Your task to perform on an android device: change the clock display to analog Image 0: 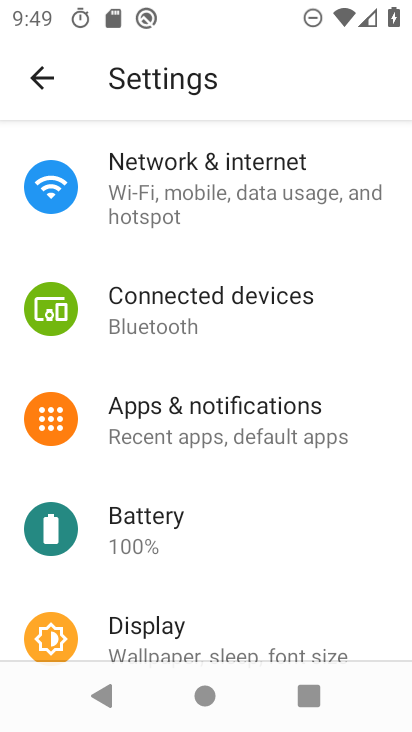
Step 0: press home button
Your task to perform on an android device: change the clock display to analog Image 1: 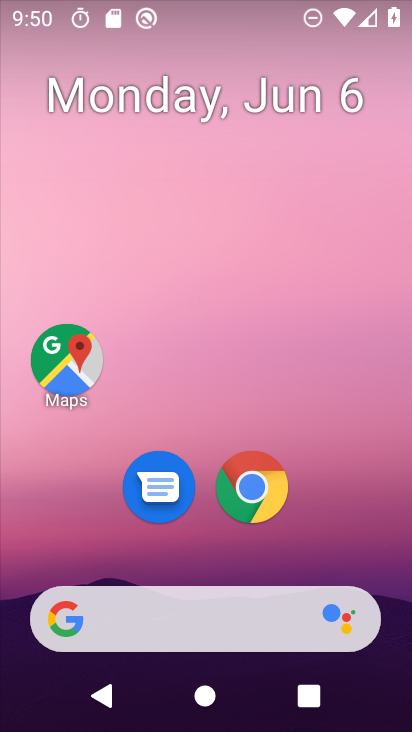
Step 1: drag from (372, 596) to (290, 53)
Your task to perform on an android device: change the clock display to analog Image 2: 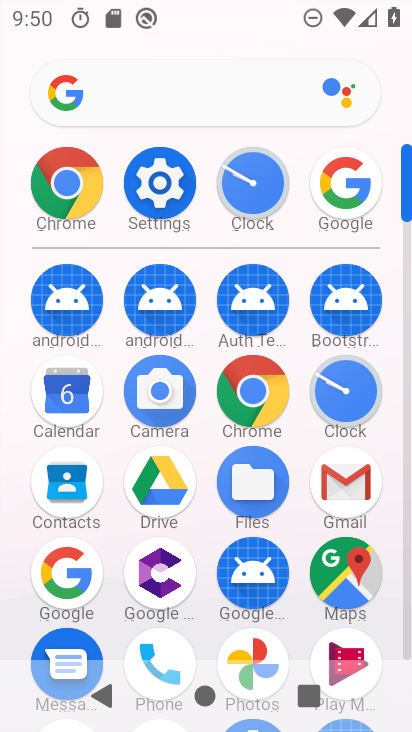
Step 2: click (332, 389)
Your task to perform on an android device: change the clock display to analog Image 3: 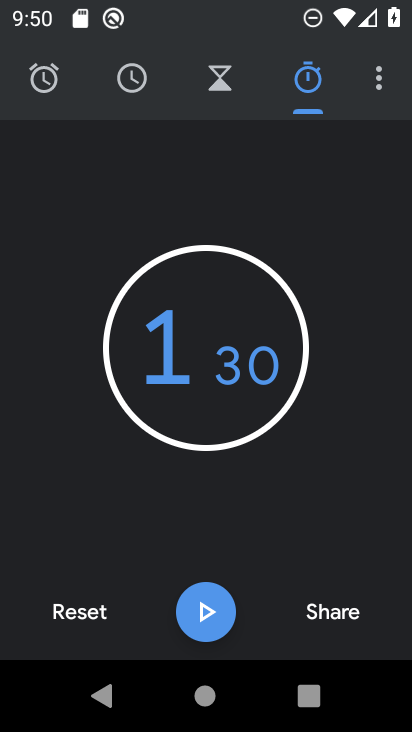
Step 3: click (369, 80)
Your task to perform on an android device: change the clock display to analog Image 4: 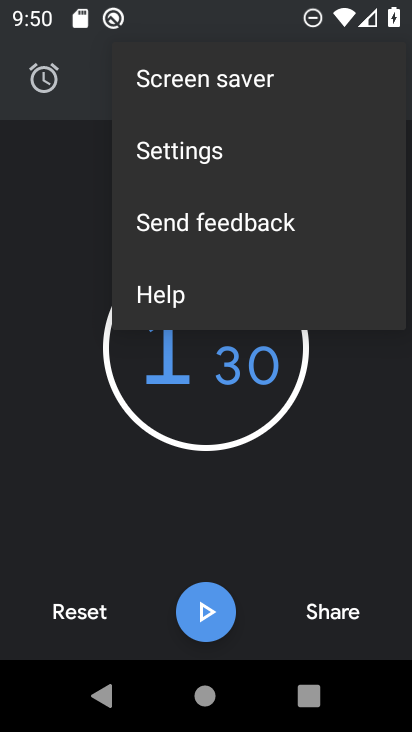
Step 4: click (220, 149)
Your task to perform on an android device: change the clock display to analog Image 5: 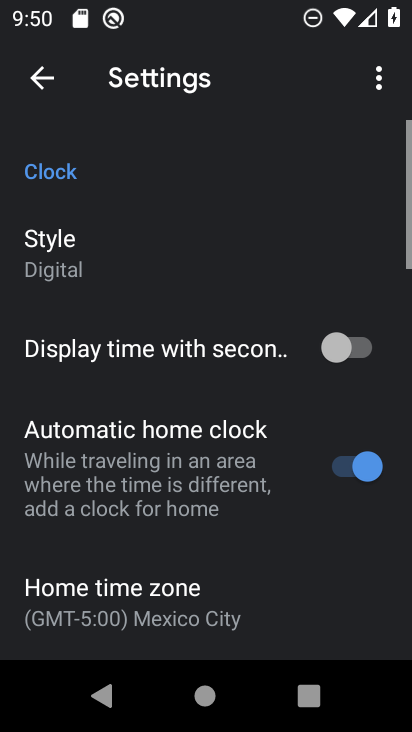
Step 5: click (219, 150)
Your task to perform on an android device: change the clock display to analog Image 6: 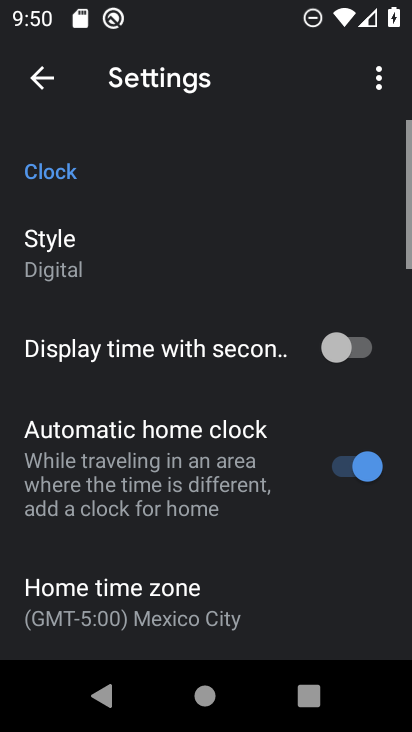
Step 6: click (150, 244)
Your task to perform on an android device: change the clock display to analog Image 7: 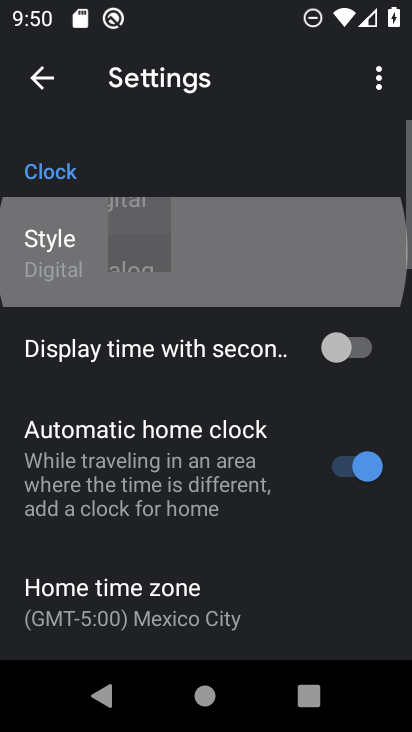
Step 7: click (149, 247)
Your task to perform on an android device: change the clock display to analog Image 8: 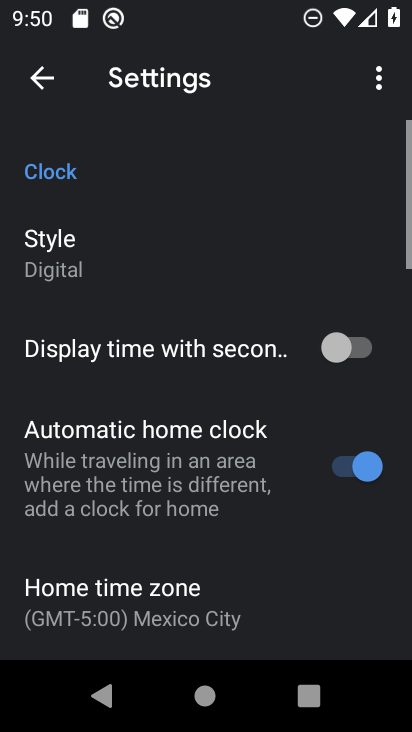
Step 8: click (113, 262)
Your task to perform on an android device: change the clock display to analog Image 9: 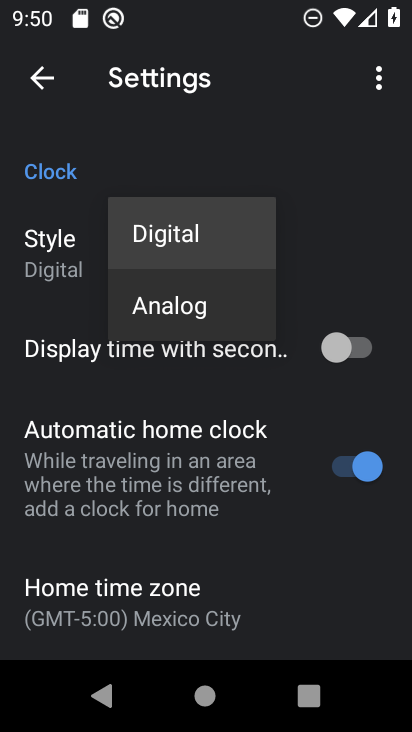
Step 9: click (140, 300)
Your task to perform on an android device: change the clock display to analog Image 10: 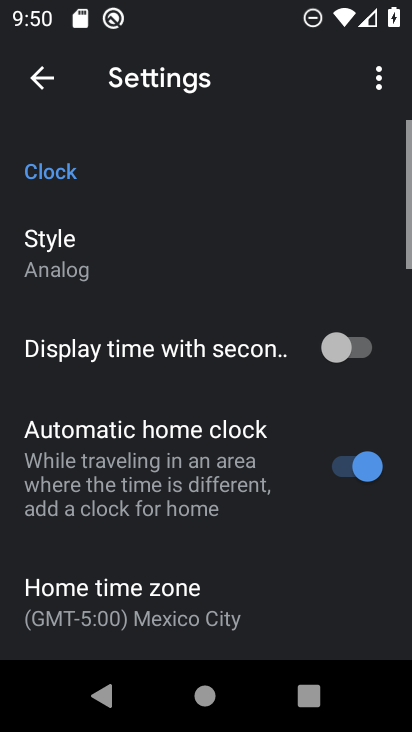
Step 10: task complete